Your task to perform on an android device: Search for logitech g933 on newegg, select the first entry, add it to the cart, then select checkout. Image 0: 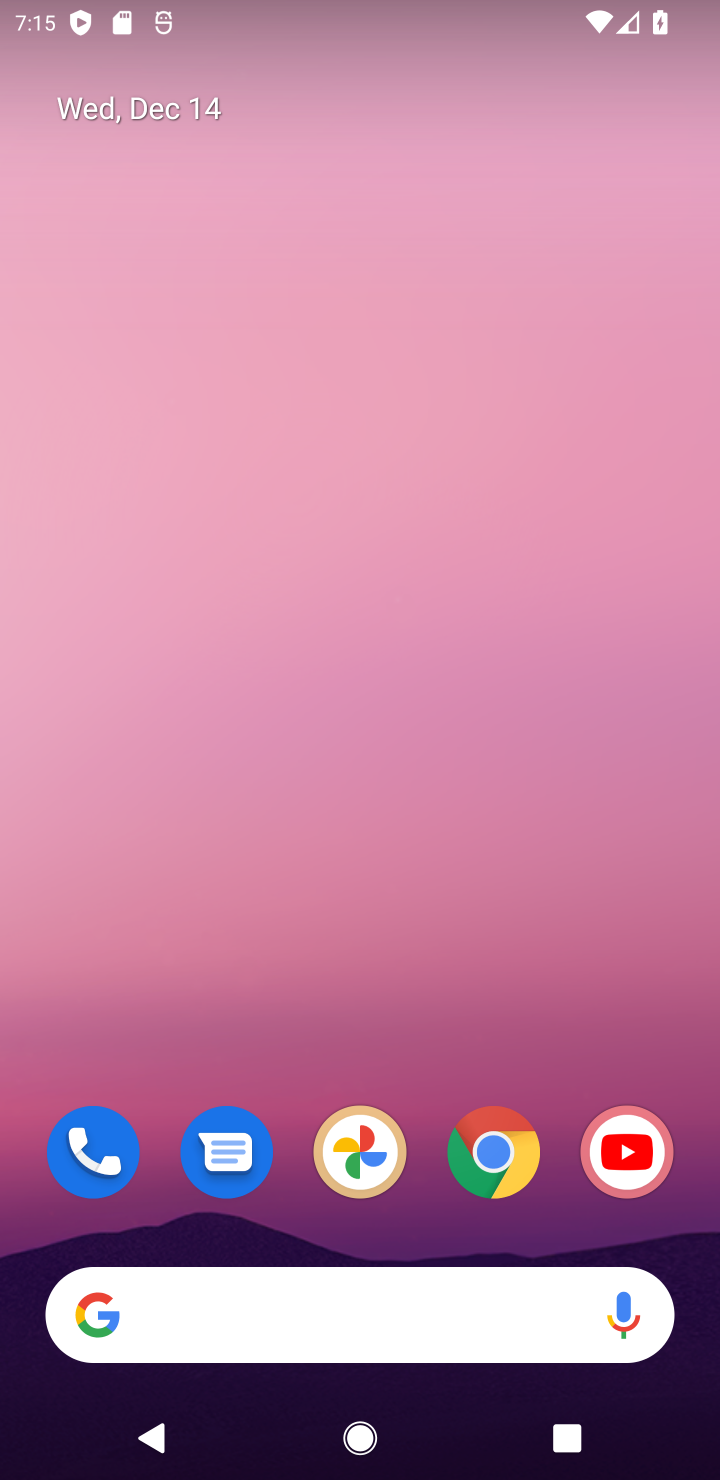
Step 0: click (486, 1172)
Your task to perform on an android device: Search for logitech g933 on newegg, select the first entry, add it to the cart, then select checkout. Image 1: 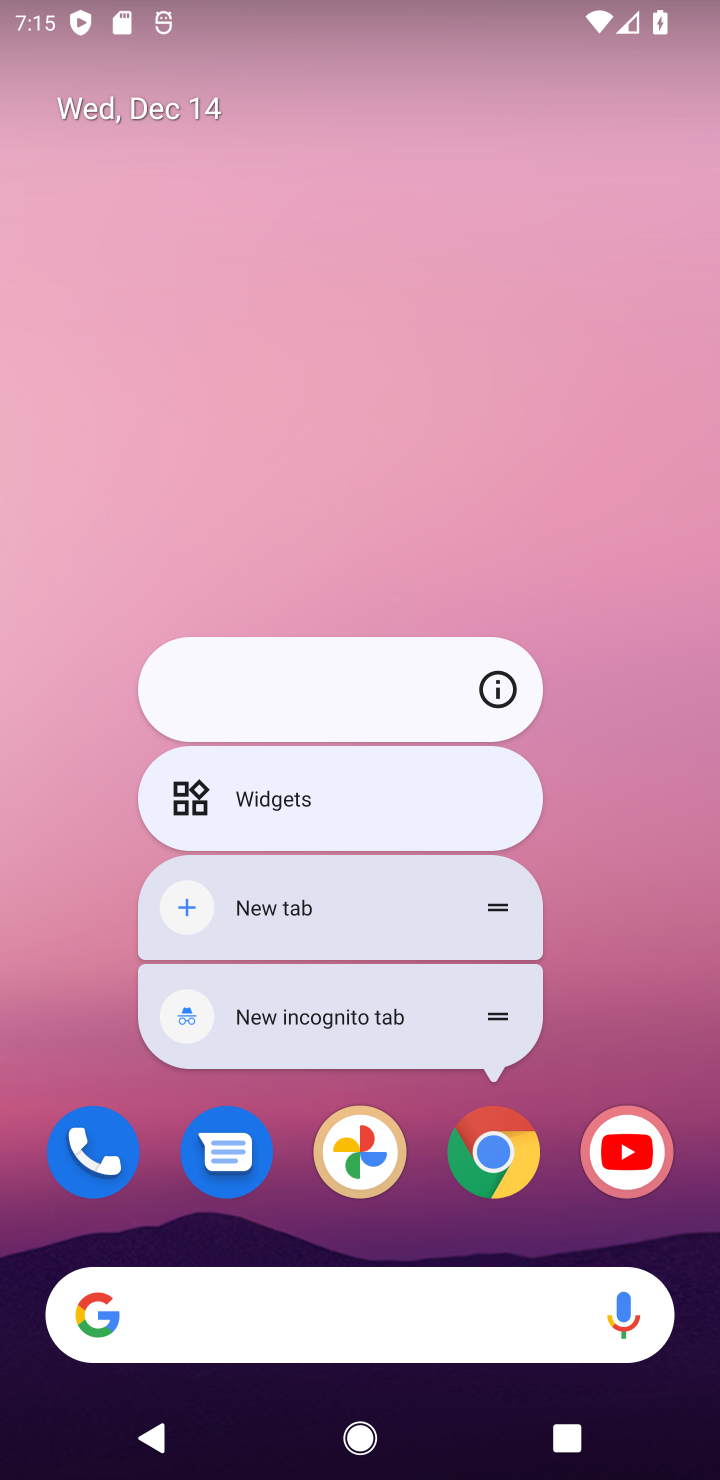
Step 1: click (491, 1166)
Your task to perform on an android device: Search for logitech g933 on newegg, select the first entry, add it to the cart, then select checkout. Image 2: 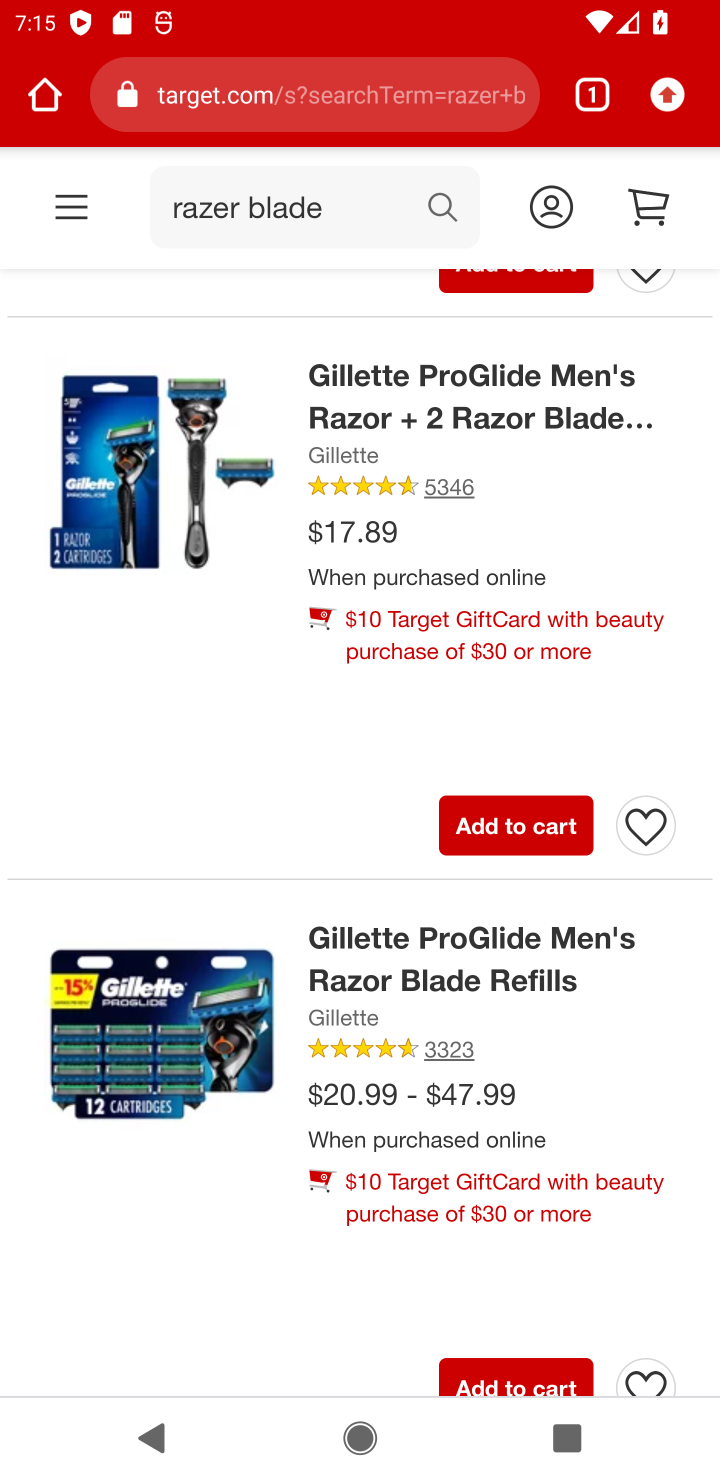
Step 2: click (285, 106)
Your task to perform on an android device: Search for logitech g933 on newegg, select the first entry, add it to the cart, then select checkout. Image 3: 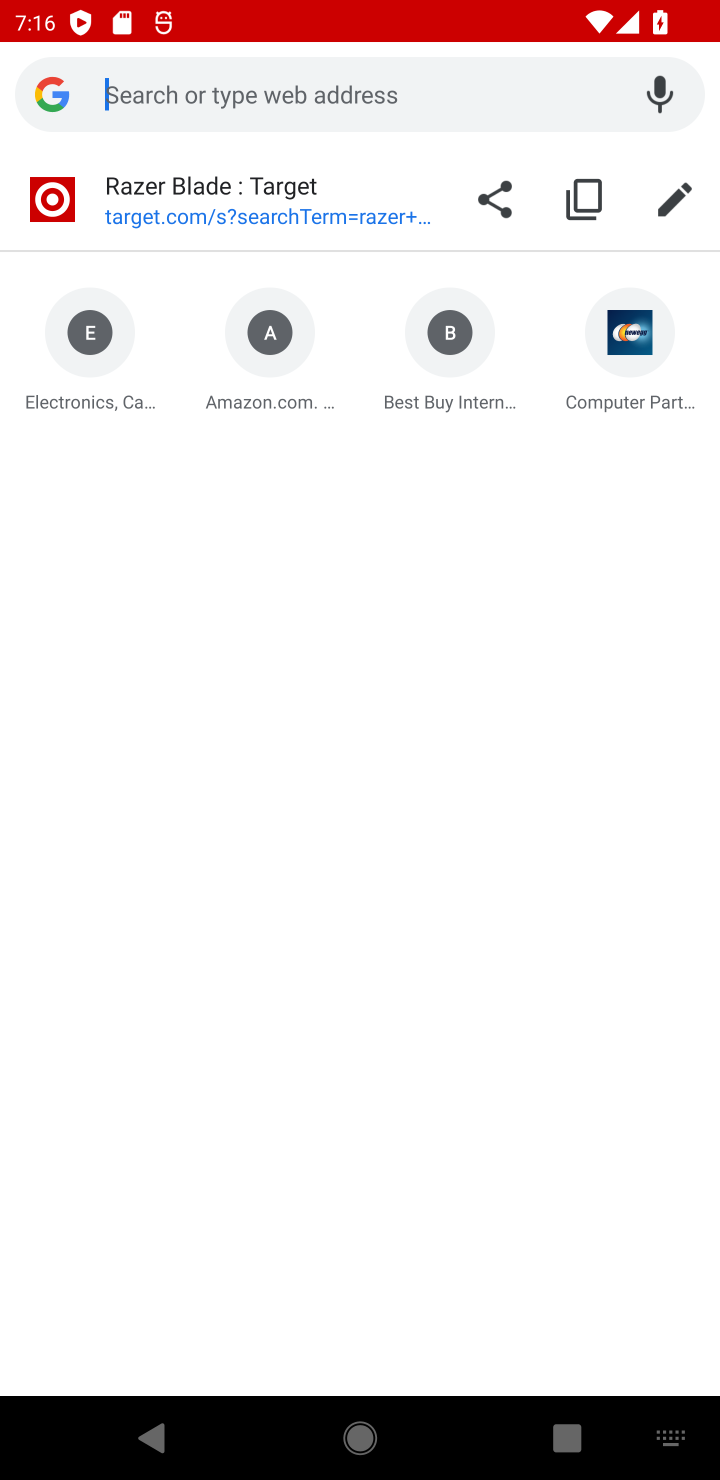
Step 3: click (632, 345)
Your task to perform on an android device: Search for logitech g933 on newegg, select the first entry, add it to the cart, then select checkout. Image 4: 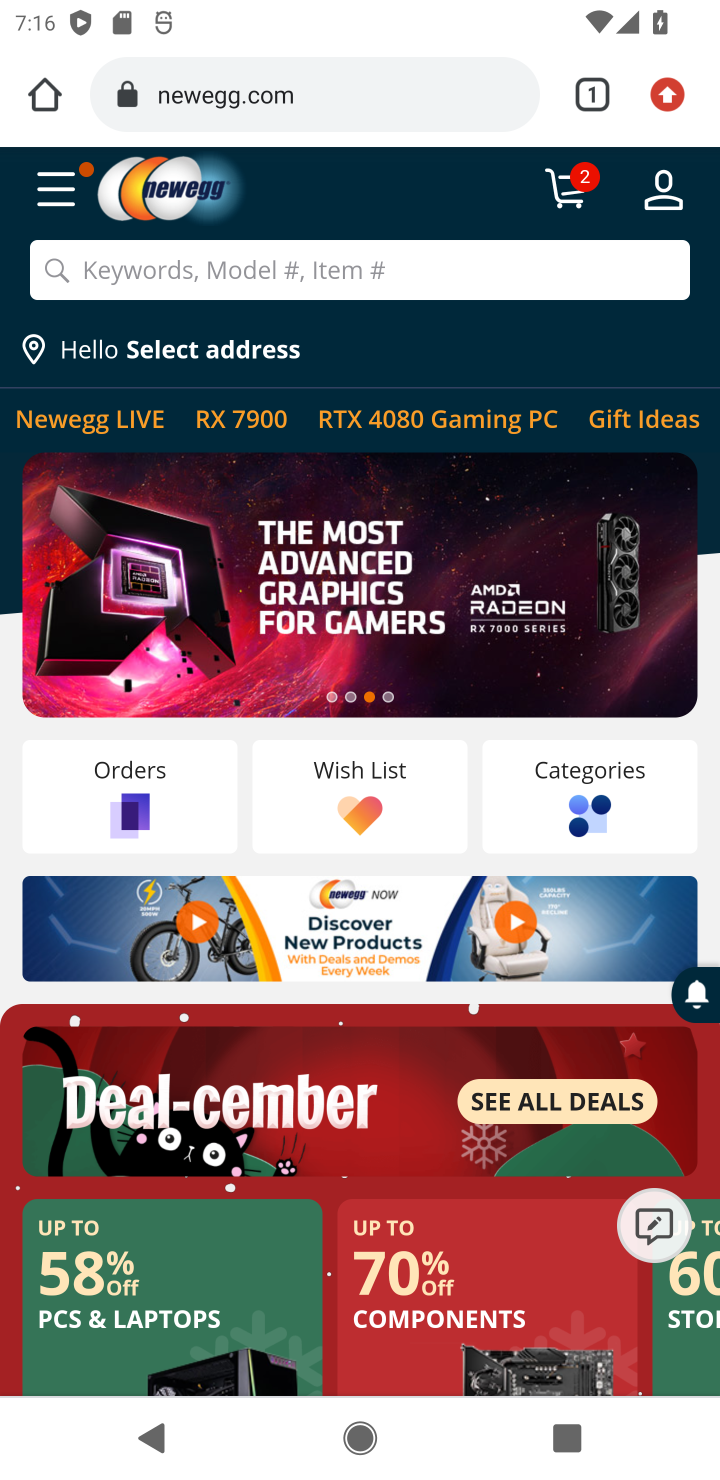
Step 4: click (202, 278)
Your task to perform on an android device: Search for logitech g933 on newegg, select the first entry, add it to the cart, then select checkout. Image 5: 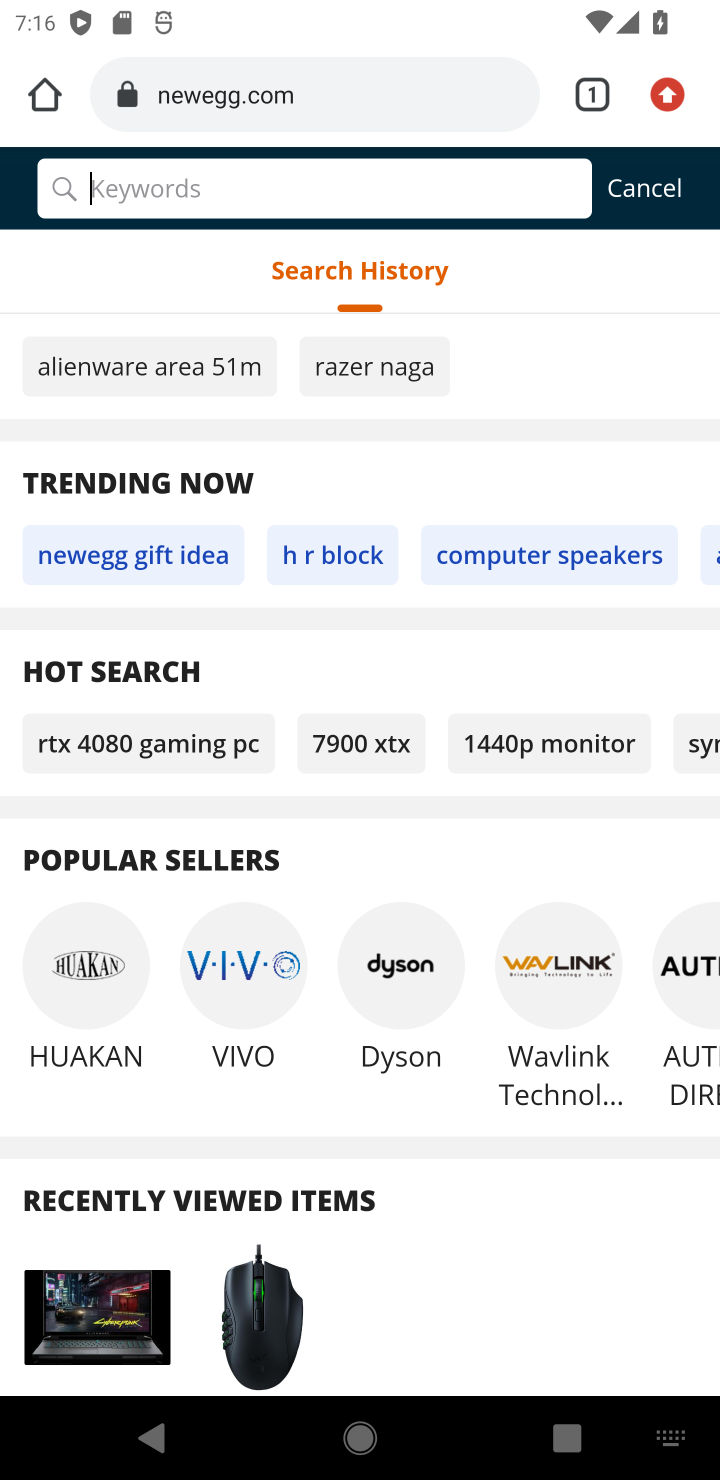
Step 5: type " logitech g933"
Your task to perform on an android device: Search for logitech g933 on newegg, select the first entry, add it to the cart, then select checkout. Image 6: 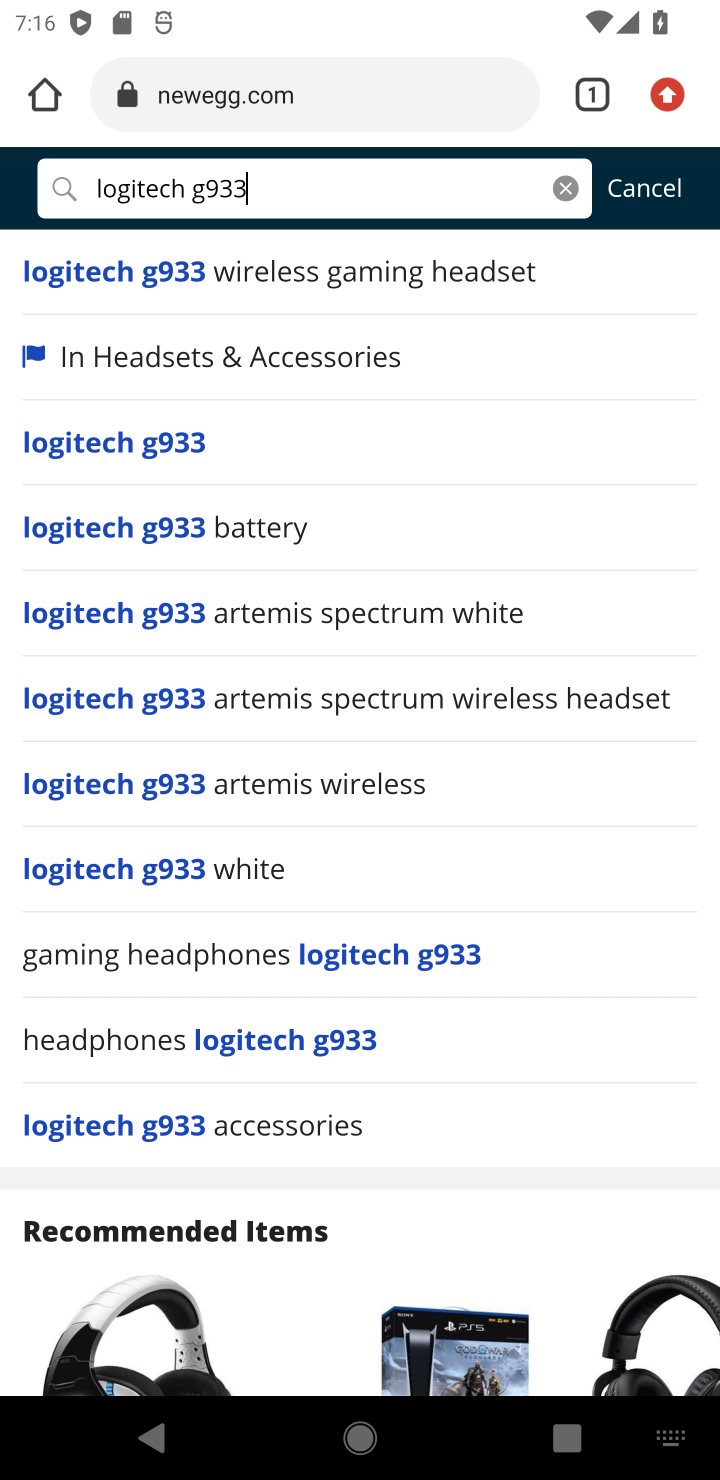
Step 6: click (143, 460)
Your task to perform on an android device: Search for logitech g933 on newegg, select the first entry, add it to the cart, then select checkout. Image 7: 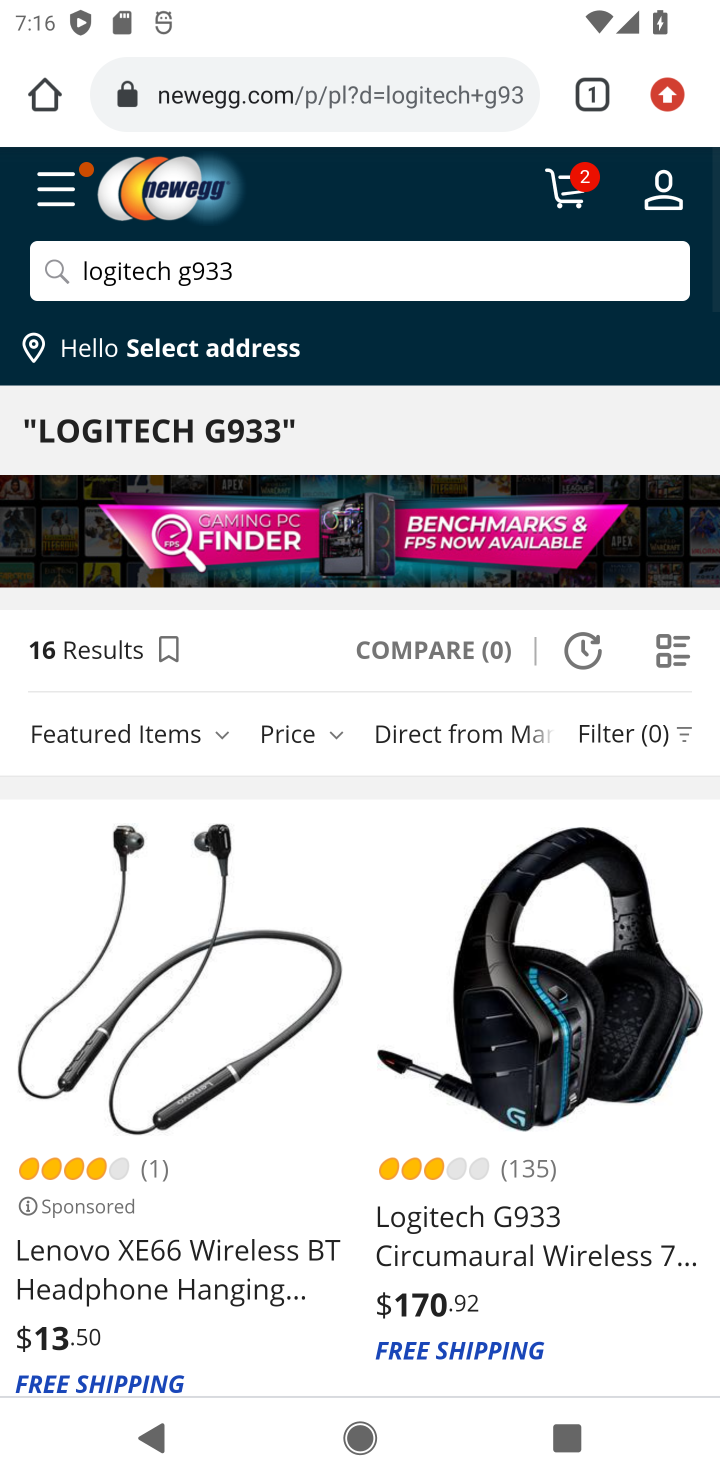
Step 7: task complete